Your task to perform on an android device: Go to calendar. Show me events next week Image 0: 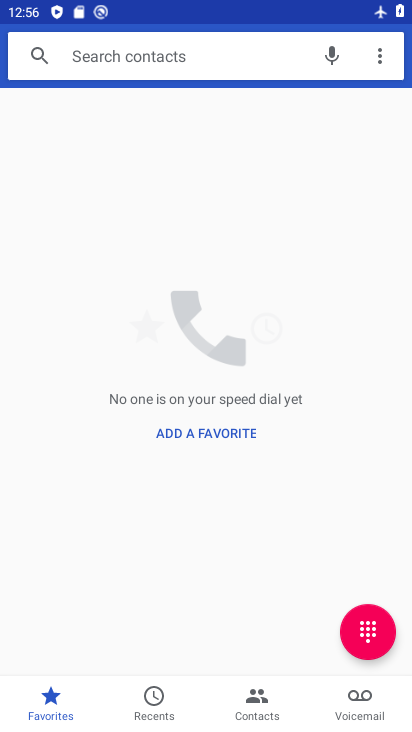
Step 0: press home button
Your task to perform on an android device: Go to calendar. Show me events next week Image 1: 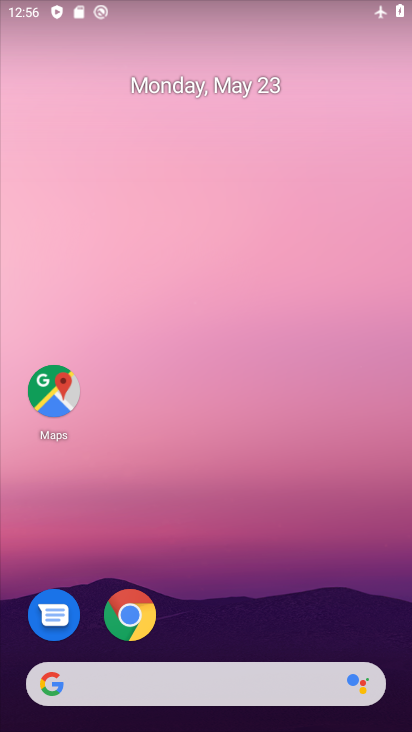
Step 1: drag from (194, 654) to (167, 83)
Your task to perform on an android device: Go to calendar. Show me events next week Image 2: 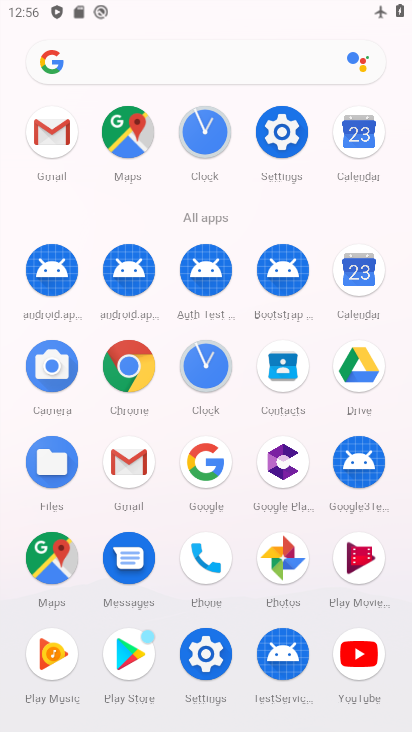
Step 2: click (351, 147)
Your task to perform on an android device: Go to calendar. Show me events next week Image 3: 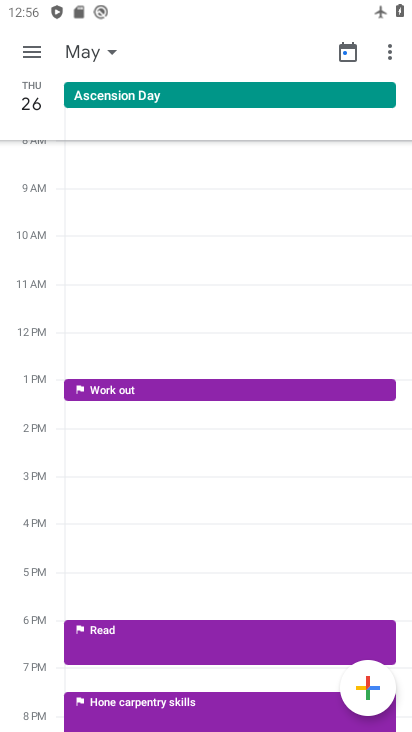
Step 3: click (27, 51)
Your task to perform on an android device: Go to calendar. Show me events next week Image 4: 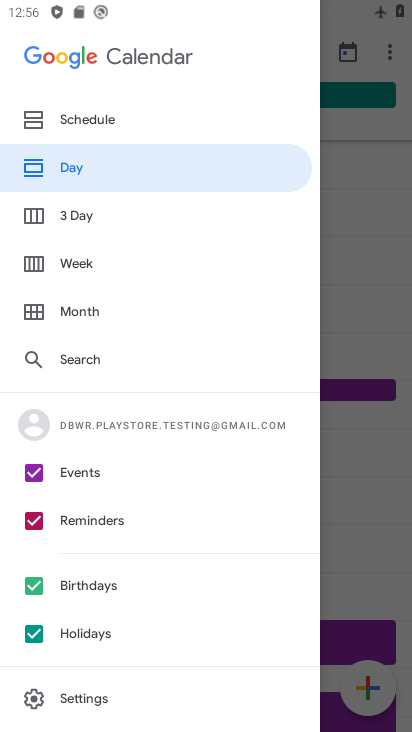
Step 4: click (90, 257)
Your task to perform on an android device: Go to calendar. Show me events next week Image 5: 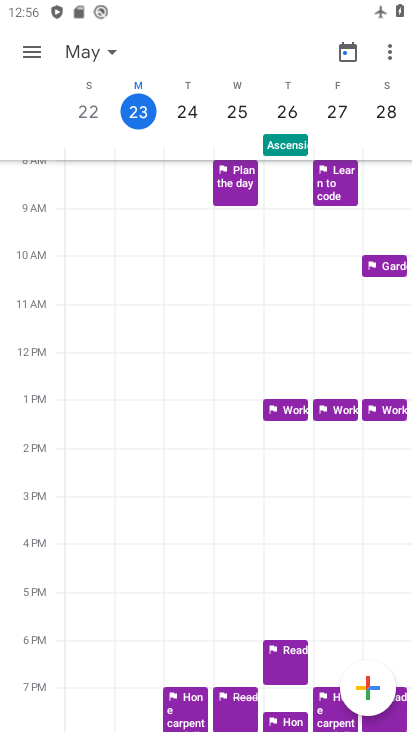
Step 5: task complete